Your task to perform on an android device: toggle location history Image 0: 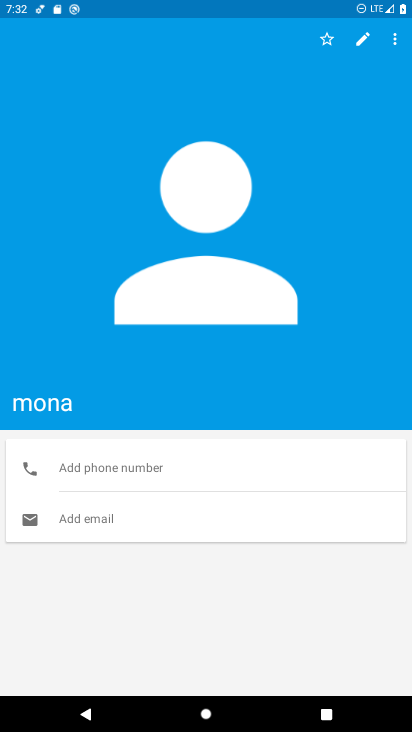
Step 0: press home button
Your task to perform on an android device: toggle location history Image 1: 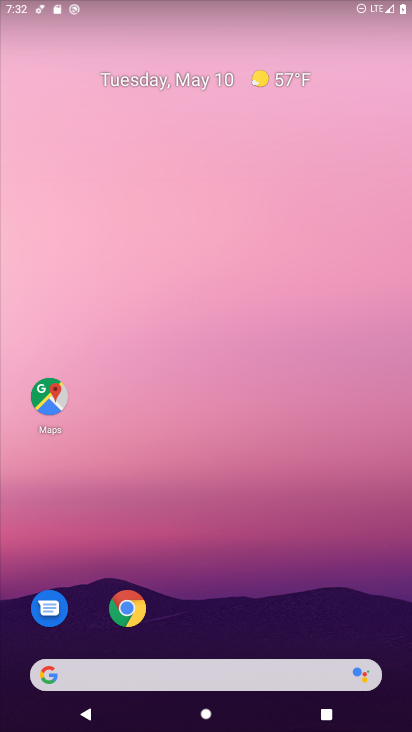
Step 1: drag from (311, 619) to (225, 39)
Your task to perform on an android device: toggle location history Image 2: 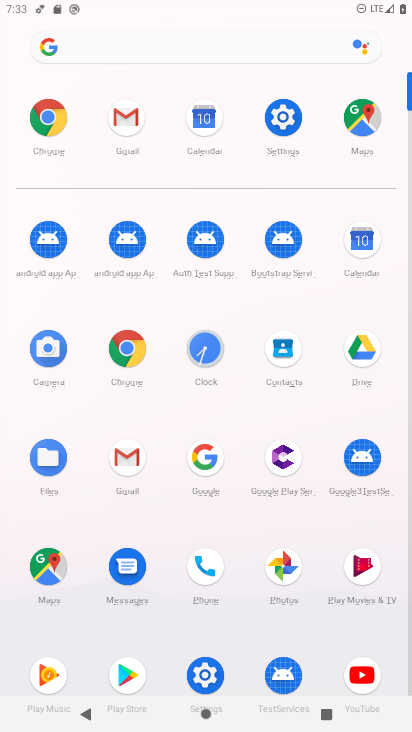
Step 2: click (213, 671)
Your task to perform on an android device: toggle location history Image 3: 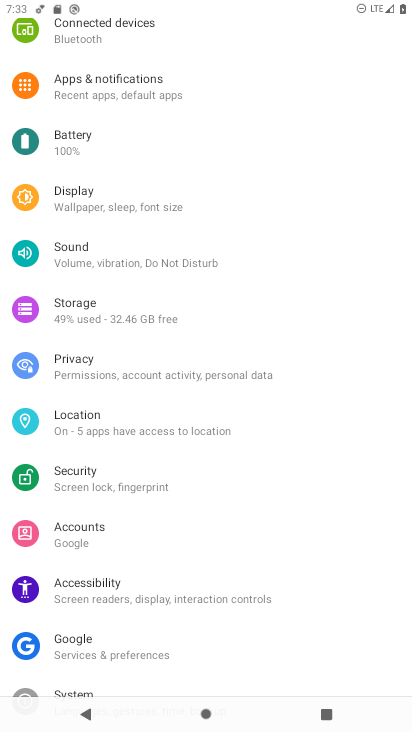
Step 3: click (108, 412)
Your task to perform on an android device: toggle location history Image 4: 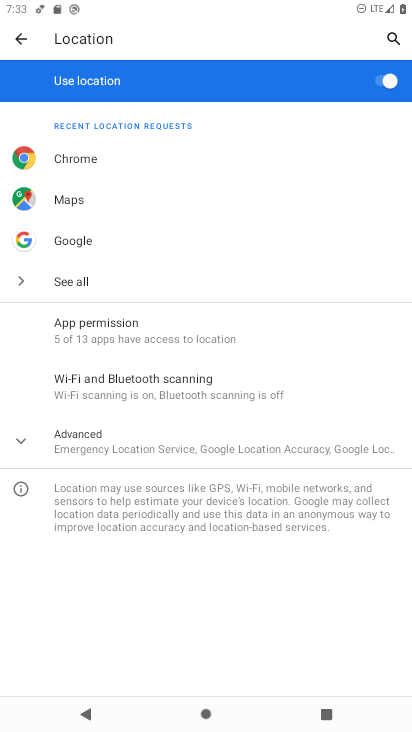
Step 4: click (122, 449)
Your task to perform on an android device: toggle location history Image 5: 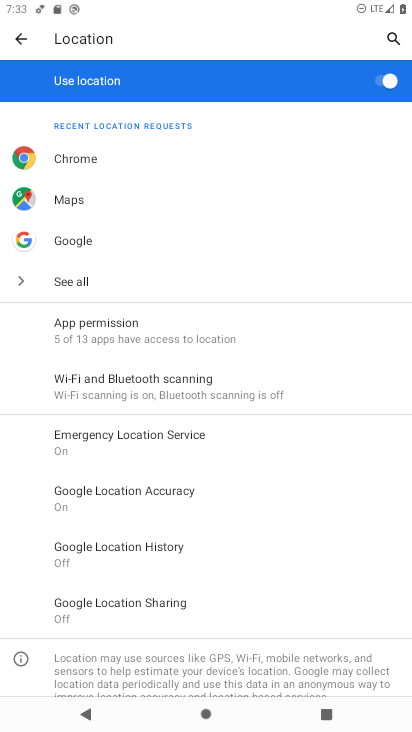
Step 5: click (155, 538)
Your task to perform on an android device: toggle location history Image 6: 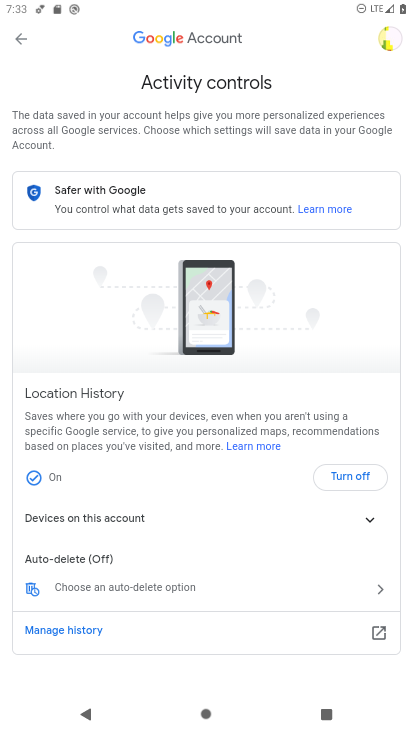
Step 6: click (336, 482)
Your task to perform on an android device: toggle location history Image 7: 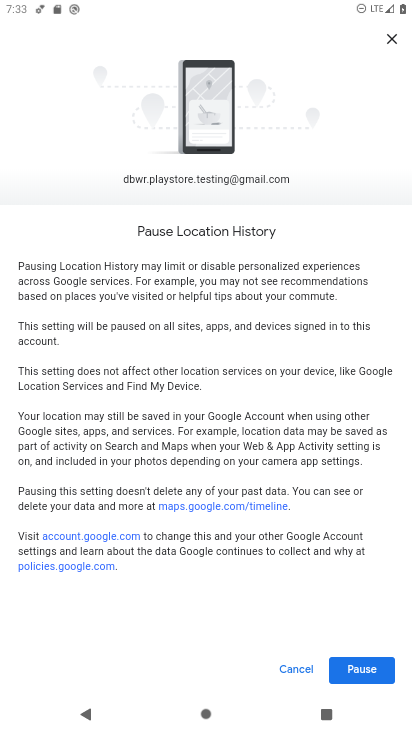
Step 7: task complete